Your task to perform on an android device: change timer sound Image 0: 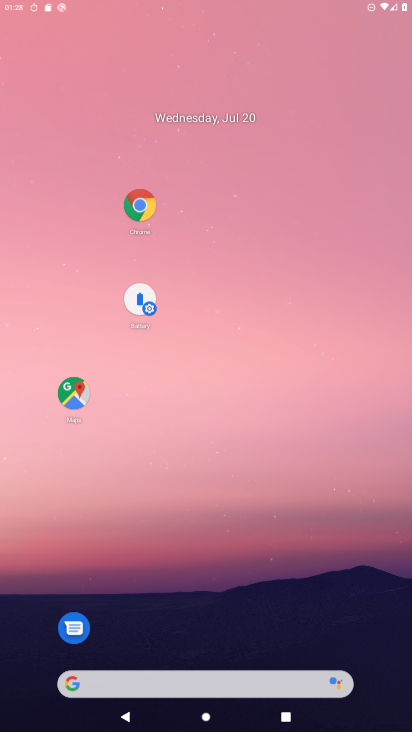
Step 0: click (251, 49)
Your task to perform on an android device: change timer sound Image 1: 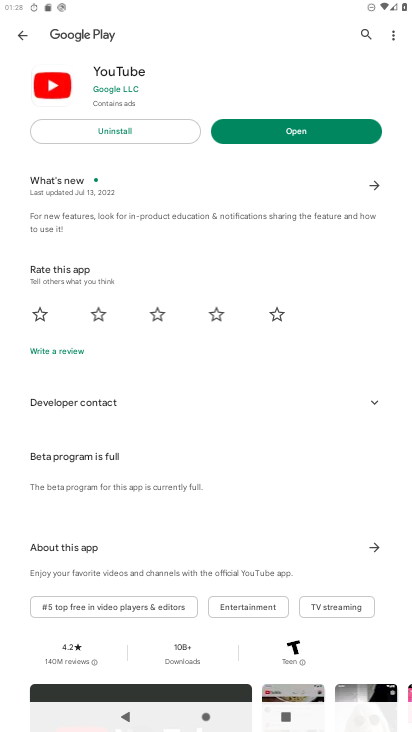
Step 1: press home button
Your task to perform on an android device: change timer sound Image 2: 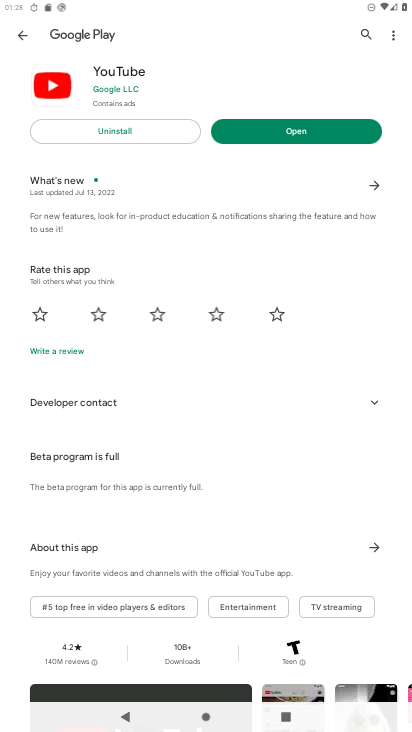
Step 2: drag from (274, 131) to (289, 29)
Your task to perform on an android device: change timer sound Image 3: 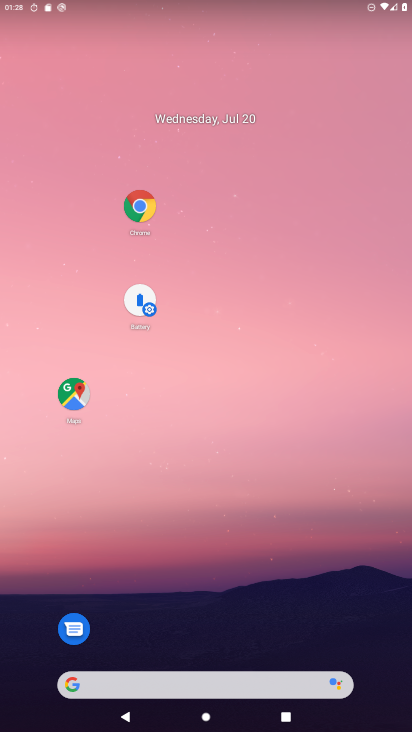
Step 3: drag from (160, 462) to (309, 34)
Your task to perform on an android device: change timer sound Image 4: 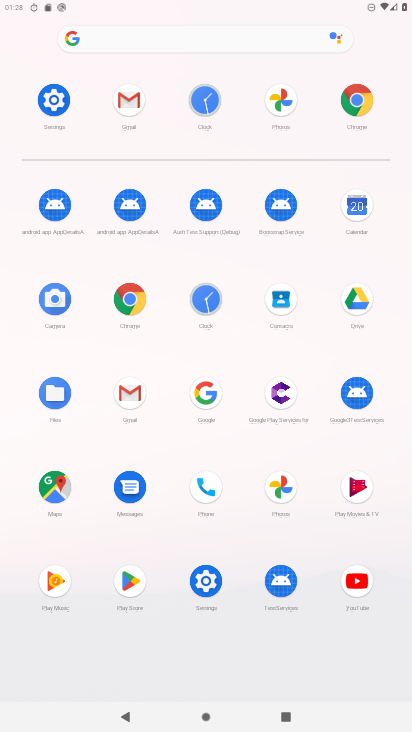
Step 4: click (191, 295)
Your task to perform on an android device: change timer sound Image 5: 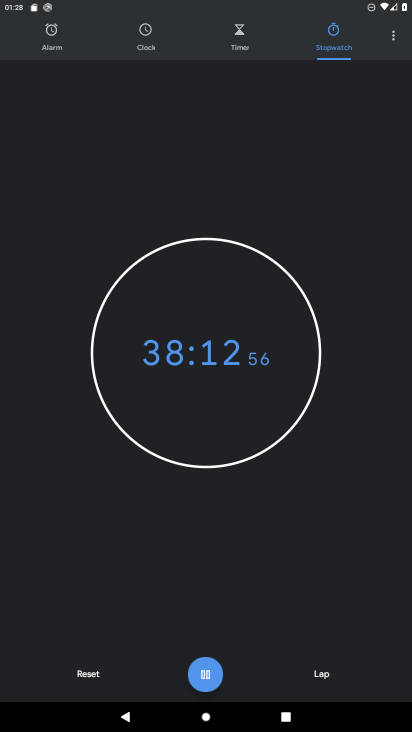
Step 5: click (241, 43)
Your task to perform on an android device: change timer sound Image 6: 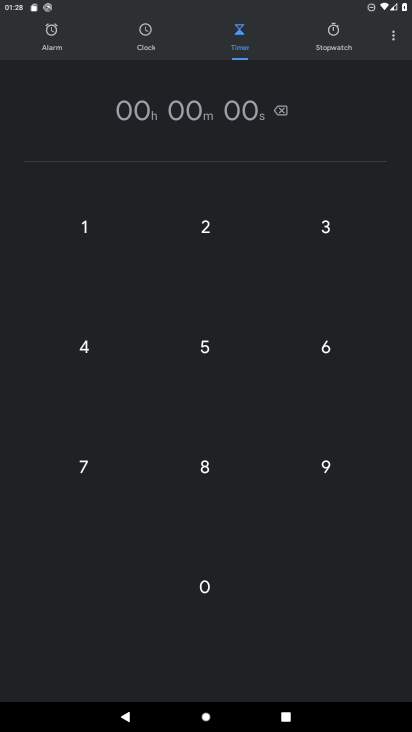
Step 6: click (209, 224)
Your task to perform on an android device: change timer sound Image 7: 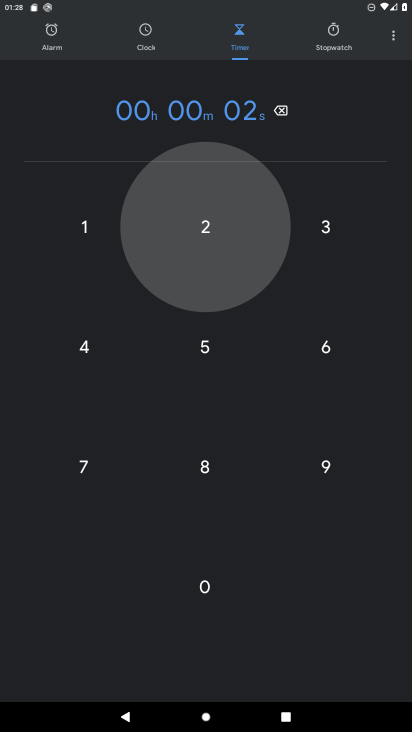
Step 7: click (302, 224)
Your task to perform on an android device: change timer sound Image 8: 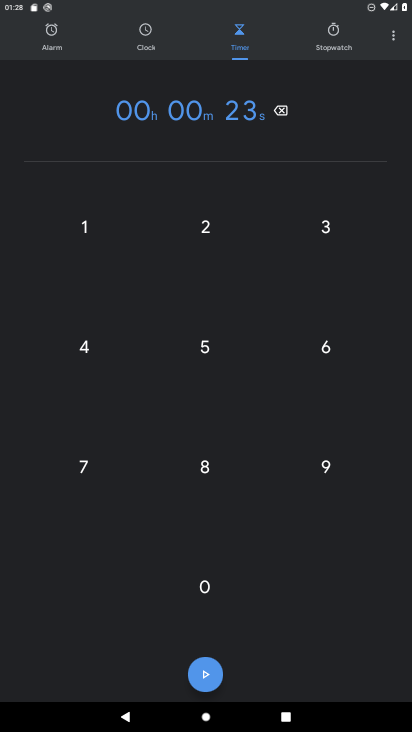
Step 8: click (195, 348)
Your task to perform on an android device: change timer sound Image 9: 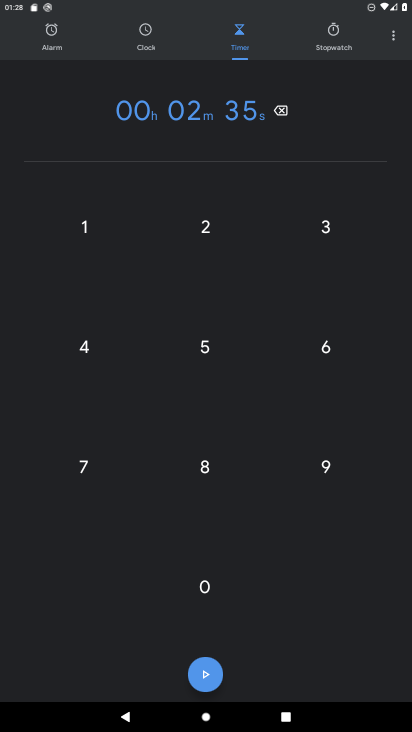
Step 9: click (195, 687)
Your task to perform on an android device: change timer sound Image 10: 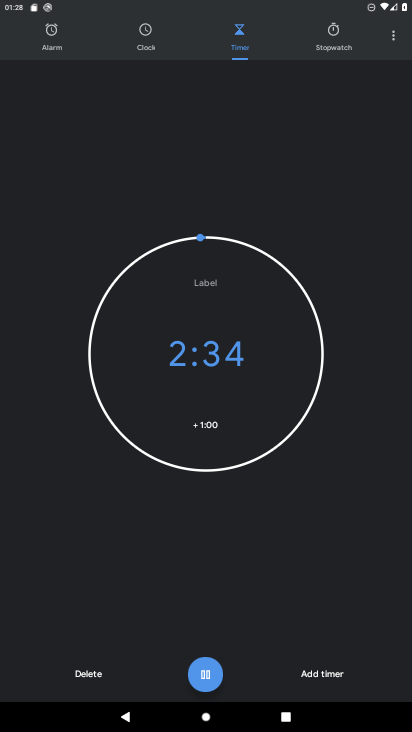
Step 10: task complete